Your task to perform on an android device: turn on wifi Image 0: 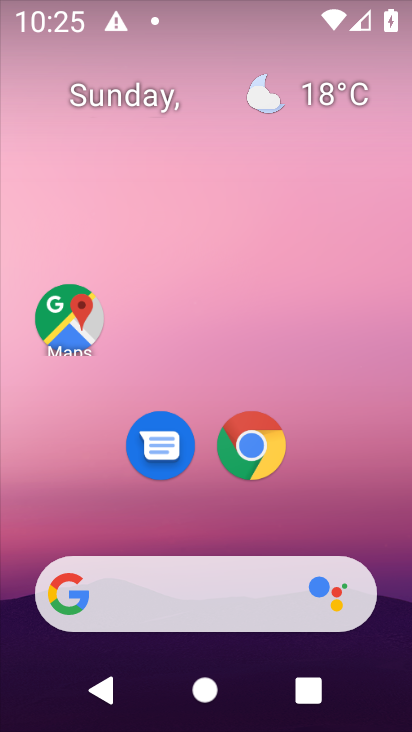
Step 0: drag from (204, 600) to (188, 42)
Your task to perform on an android device: turn on wifi Image 1: 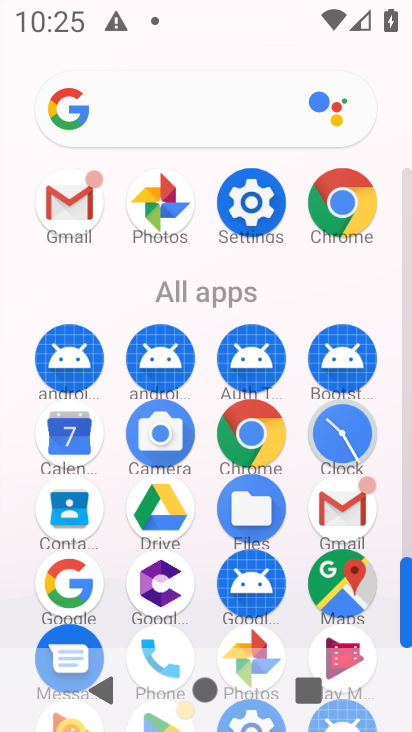
Step 1: click (239, 200)
Your task to perform on an android device: turn on wifi Image 2: 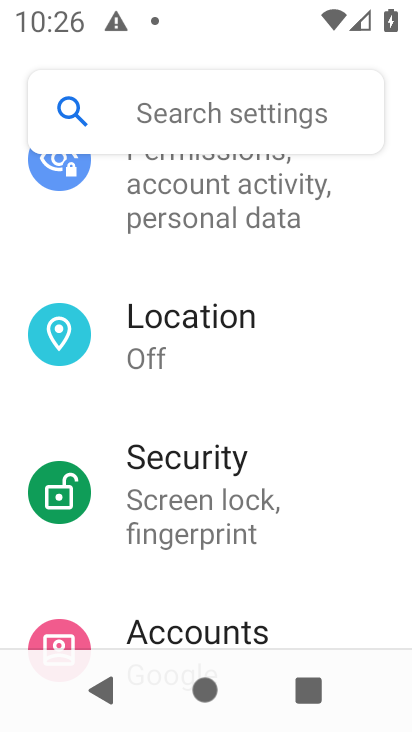
Step 2: drag from (209, 250) to (203, 636)
Your task to perform on an android device: turn on wifi Image 3: 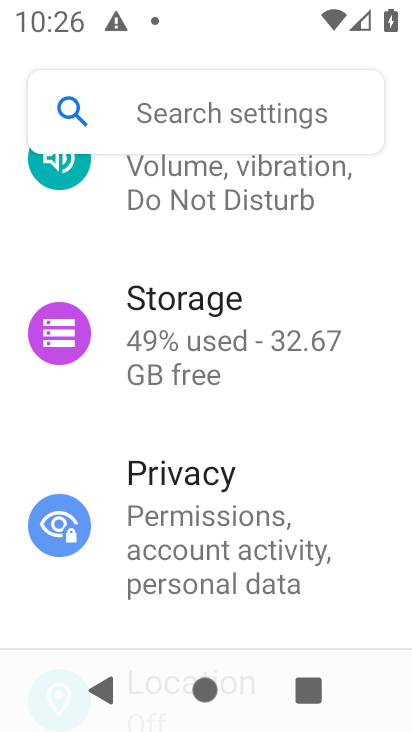
Step 3: drag from (283, 234) to (271, 574)
Your task to perform on an android device: turn on wifi Image 4: 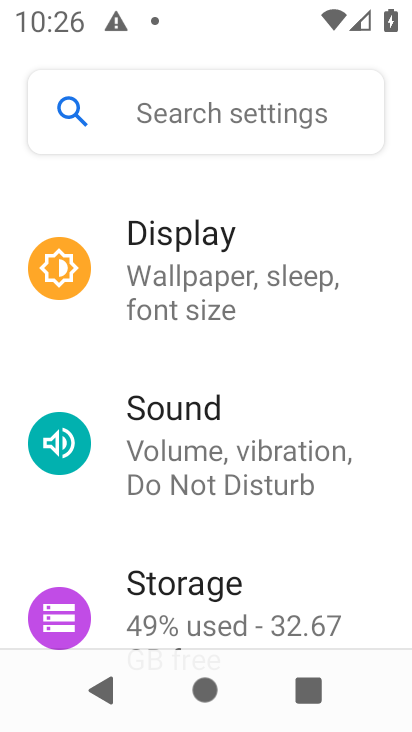
Step 4: drag from (206, 265) to (163, 680)
Your task to perform on an android device: turn on wifi Image 5: 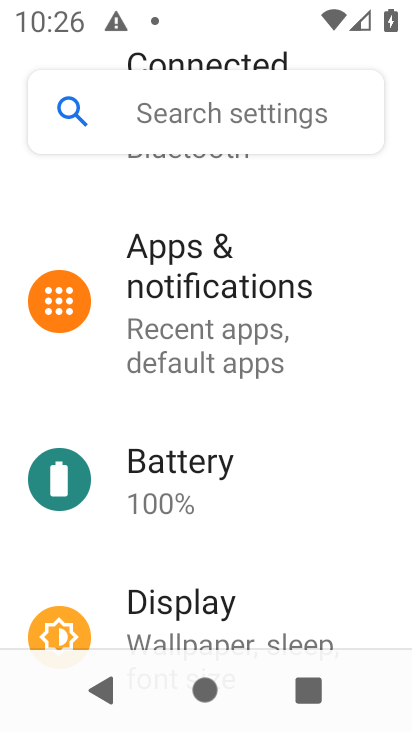
Step 5: drag from (221, 268) to (175, 520)
Your task to perform on an android device: turn on wifi Image 6: 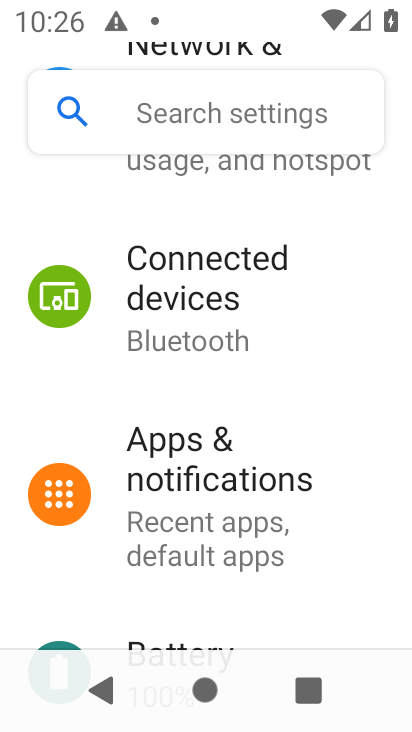
Step 6: drag from (257, 213) to (214, 584)
Your task to perform on an android device: turn on wifi Image 7: 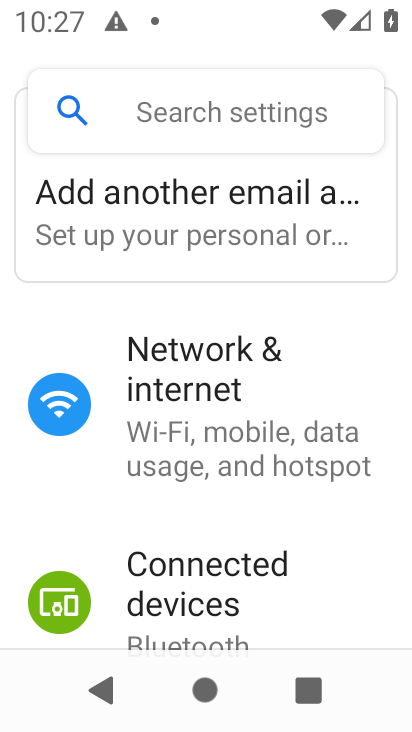
Step 7: click (198, 383)
Your task to perform on an android device: turn on wifi Image 8: 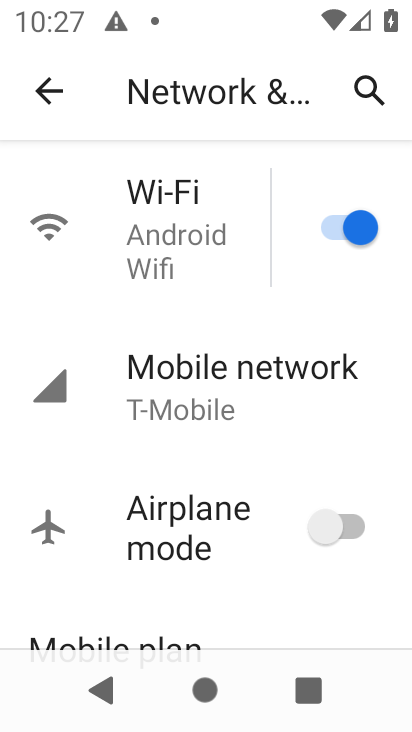
Step 8: task complete